Your task to perform on an android device: Open wifi settings Image 0: 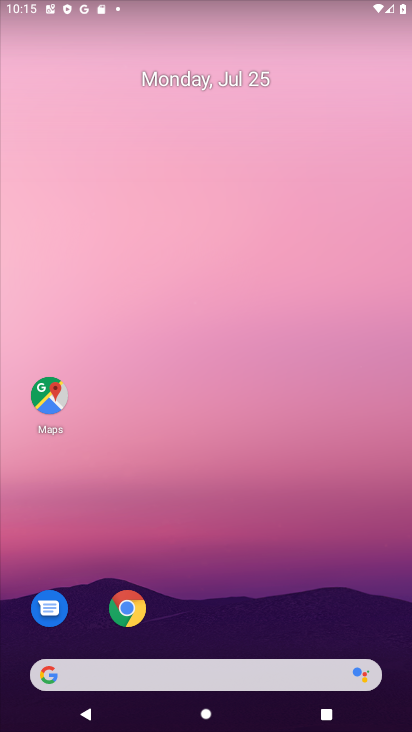
Step 0: drag from (212, 690) to (311, 175)
Your task to perform on an android device: Open wifi settings Image 1: 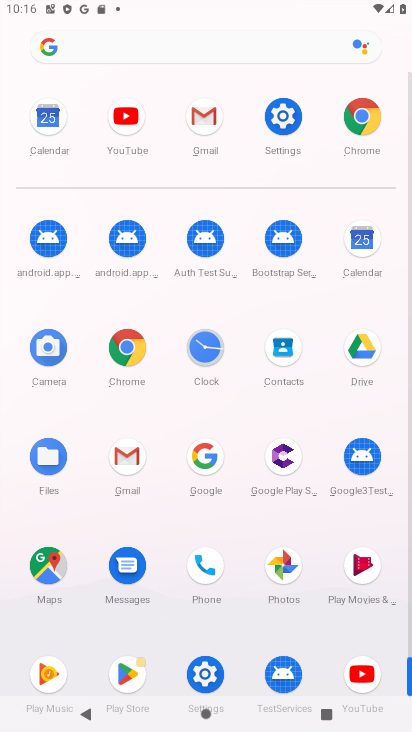
Step 1: click (287, 145)
Your task to perform on an android device: Open wifi settings Image 2: 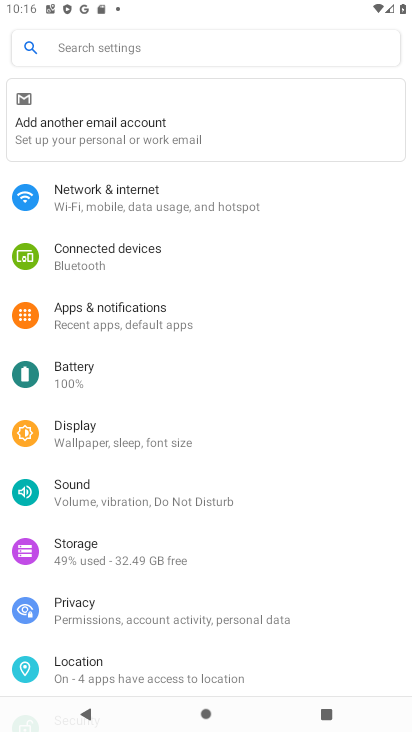
Step 2: click (125, 194)
Your task to perform on an android device: Open wifi settings Image 3: 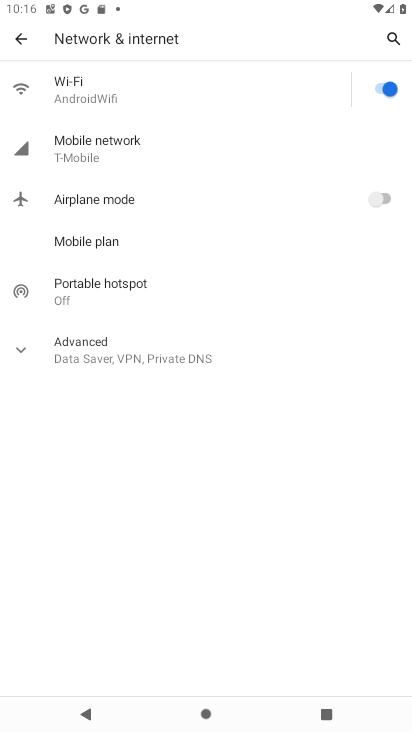
Step 3: click (128, 85)
Your task to perform on an android device: Open wifi settings Image 4: 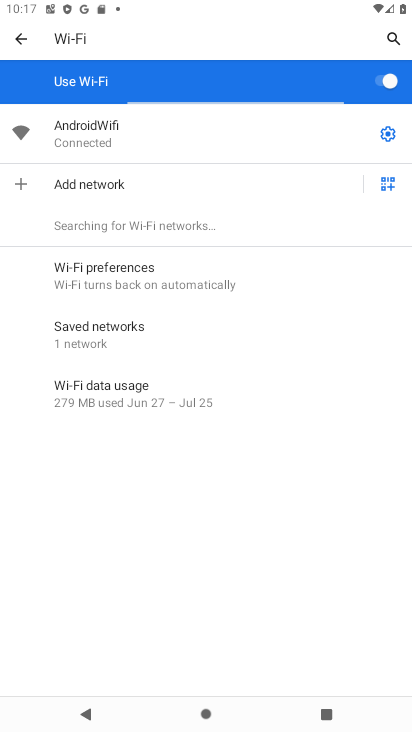
Step 4: task complete